Your task to perform on an android device: Open battery settings Image 0: 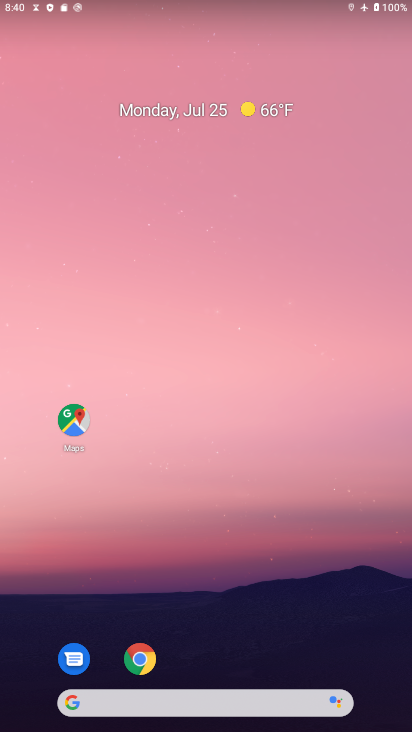
Step 0: drag from (250, 693) to (213, 53)
Your task to perform on an android device: Open battery settings Image 1: 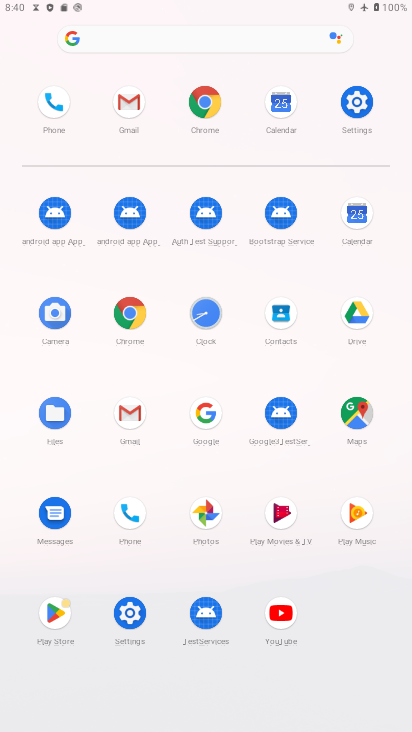
Step 1: click (344, 106)
Your task to perform on an android device: Open battery settings Image 2: 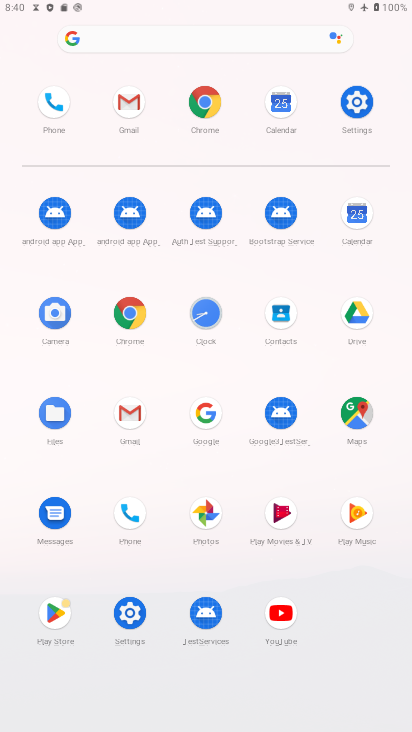
Step 2: click (354, 108)
Your task to perform on an android device: Open battery settings Image 3: 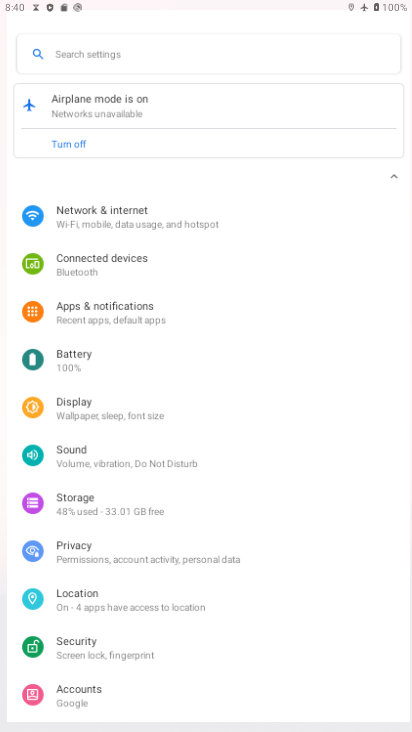
Step 3: click (360, 109)
Your task to perform on an android device: Open battery settings Image 4: 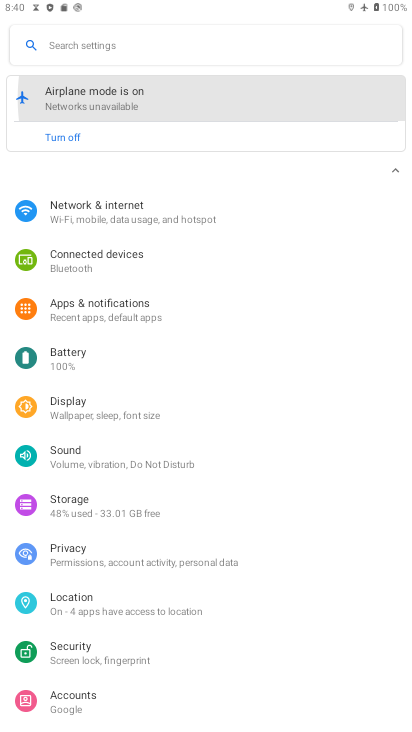
Step 4: click (360, 109)
Your task to perform on an android device: Open battery settings Image 5: 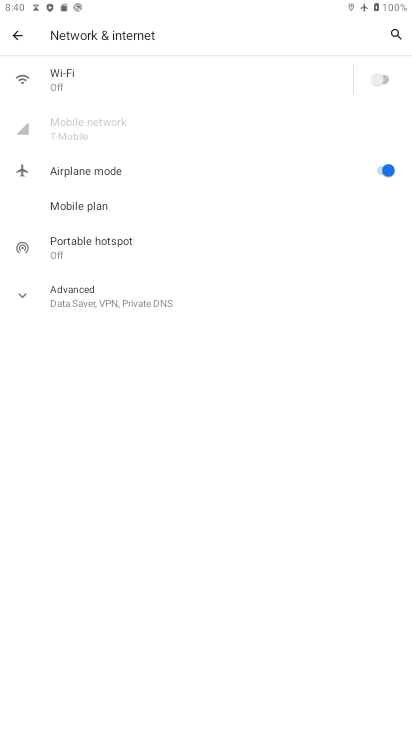
Step 5: click (17, 28)
Your task to perform on an android device: Open battery settings Image 6: 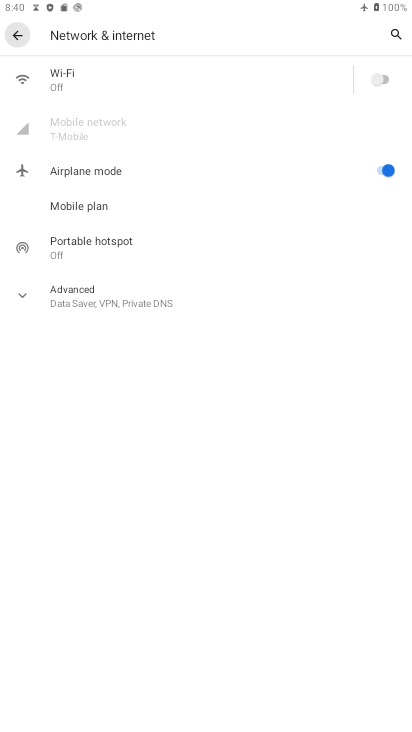
Step 6: click (18, 29)
Your task to perform on an android device: Open battery settings Image 7: 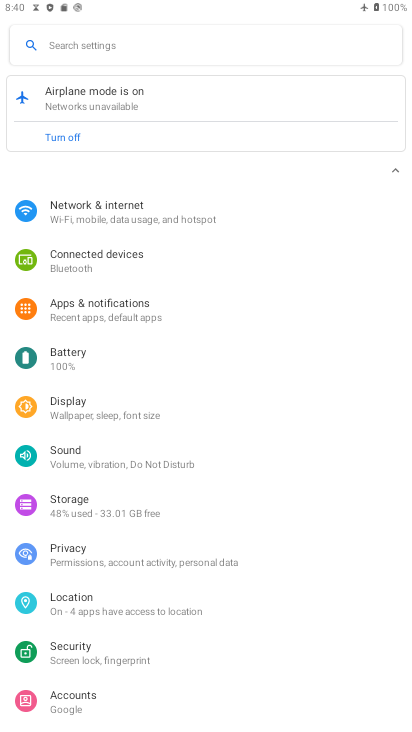
Step 7: click (57, 354)
Your task to perform on an android device: Open battery settings Image 8: 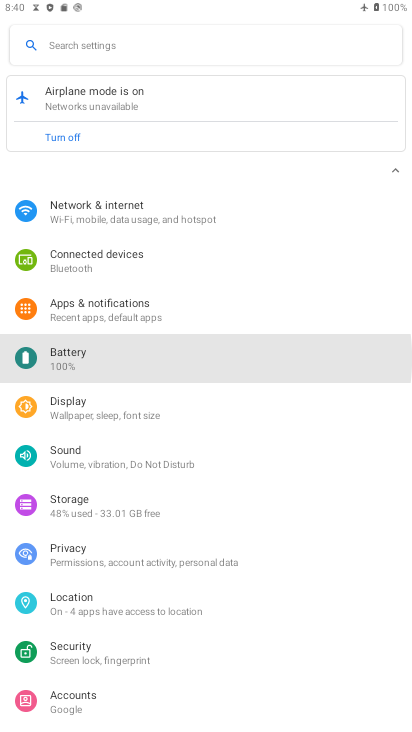
Step 8: click (59, 356)
Your task to perform on an android device: Open battery settings Image 9: 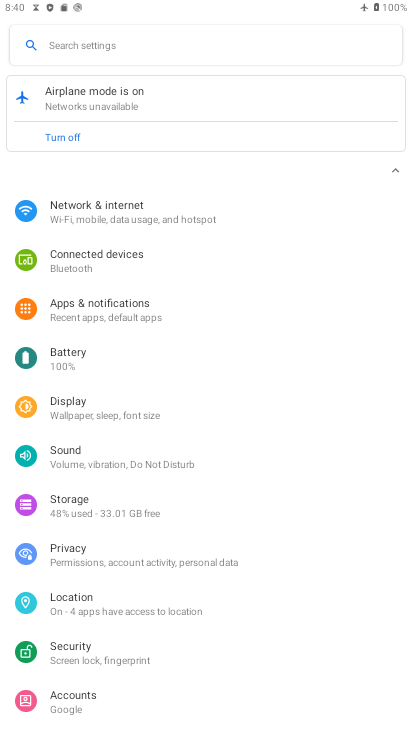
Step 9: click (62, 355)
Your task to perform on an android device: Open battery settings Image 10: 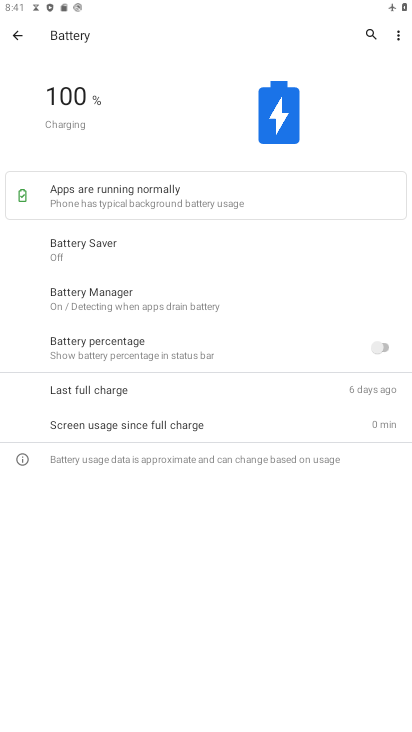
Step 10: task complete